Your task to perform on an android device: Add "asus rog" to the cart on ebay, then select checkout. Image 0: 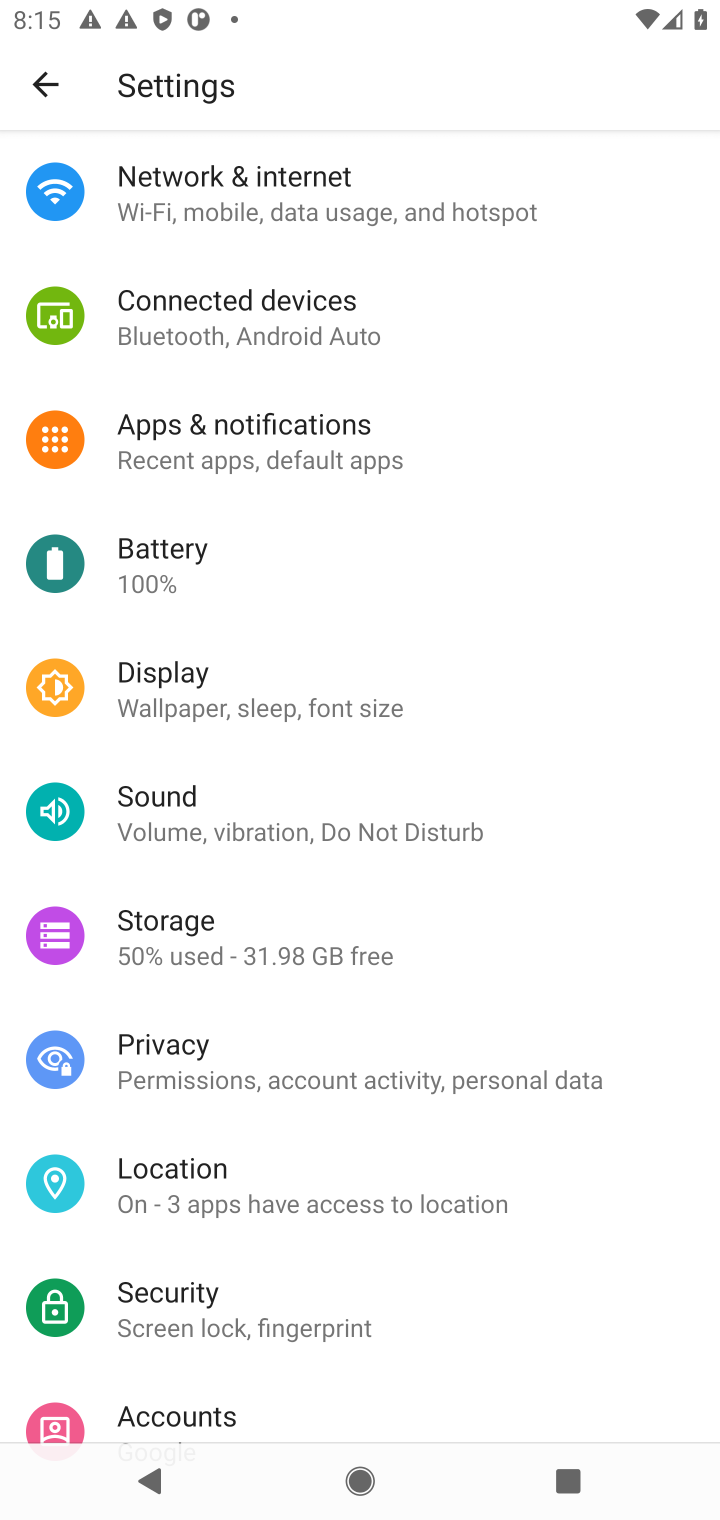
Step 0: press home button
Your task to perform on an android device: Add "asus rog" to the cart on ebay, then select checkout. Image 1: 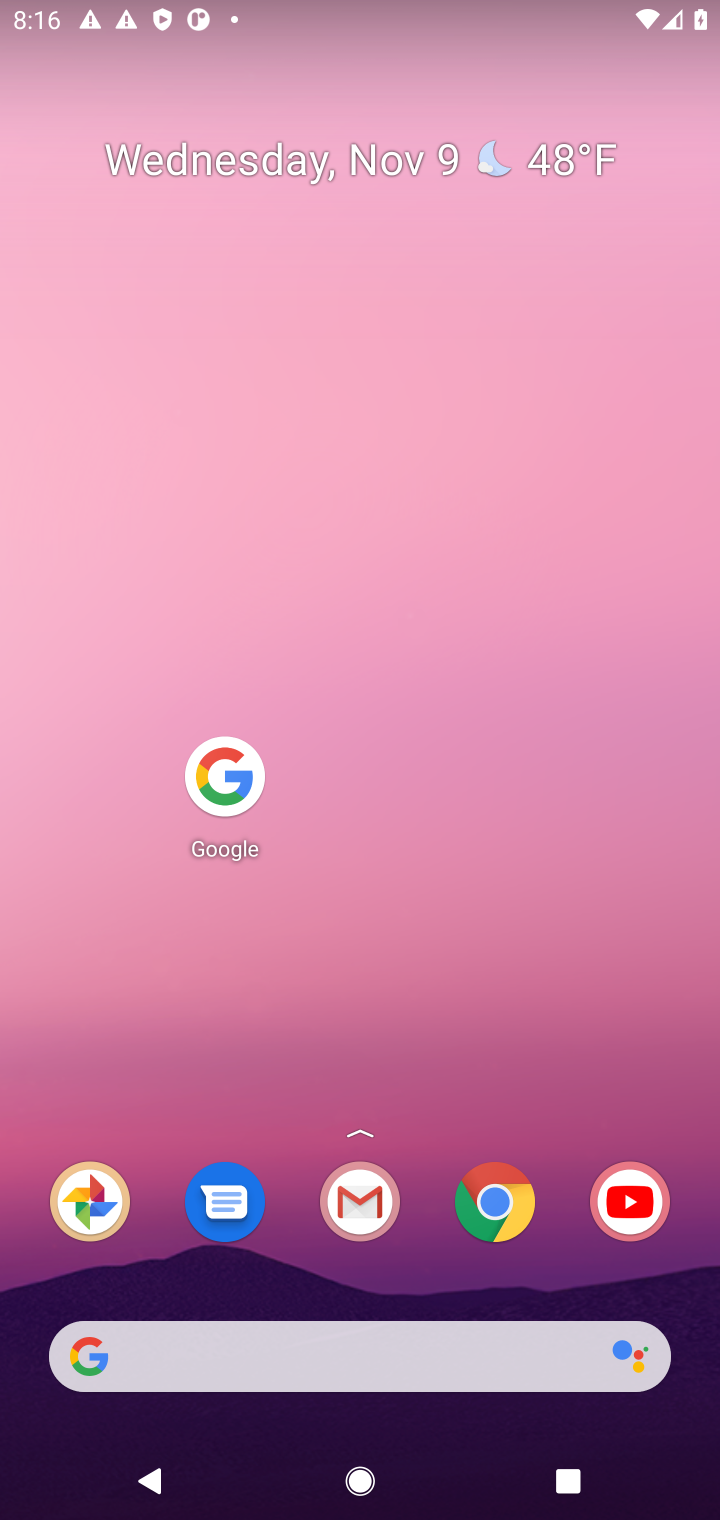
Step 1: click (219, 765)
Your task to perform on an android device: Add "asus rog" to the cart on ebay, then select checkout. Image 2: 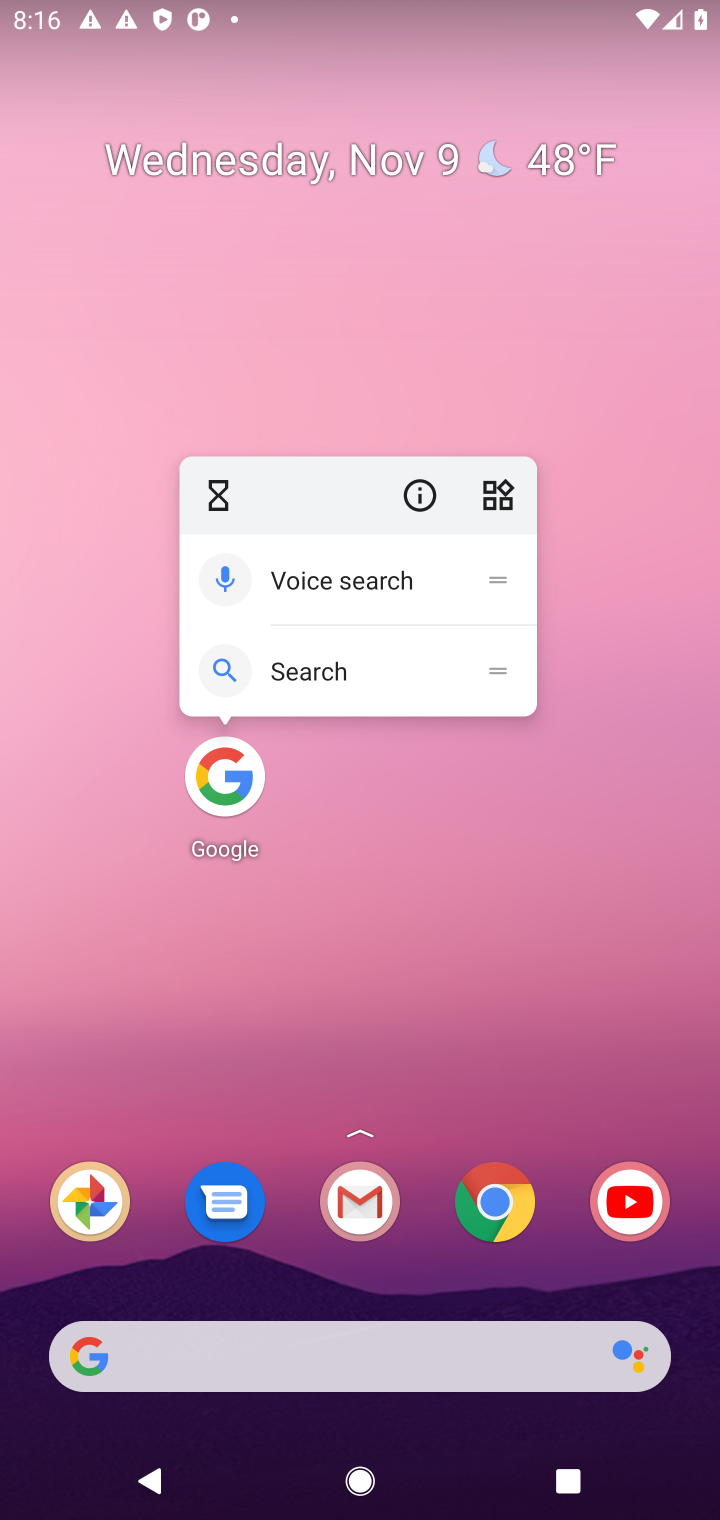
Step 2: click (237, 744)
Your task to perform on an android device: Add "asus rog" to the cart on ebay, then select checkout. Image 3: 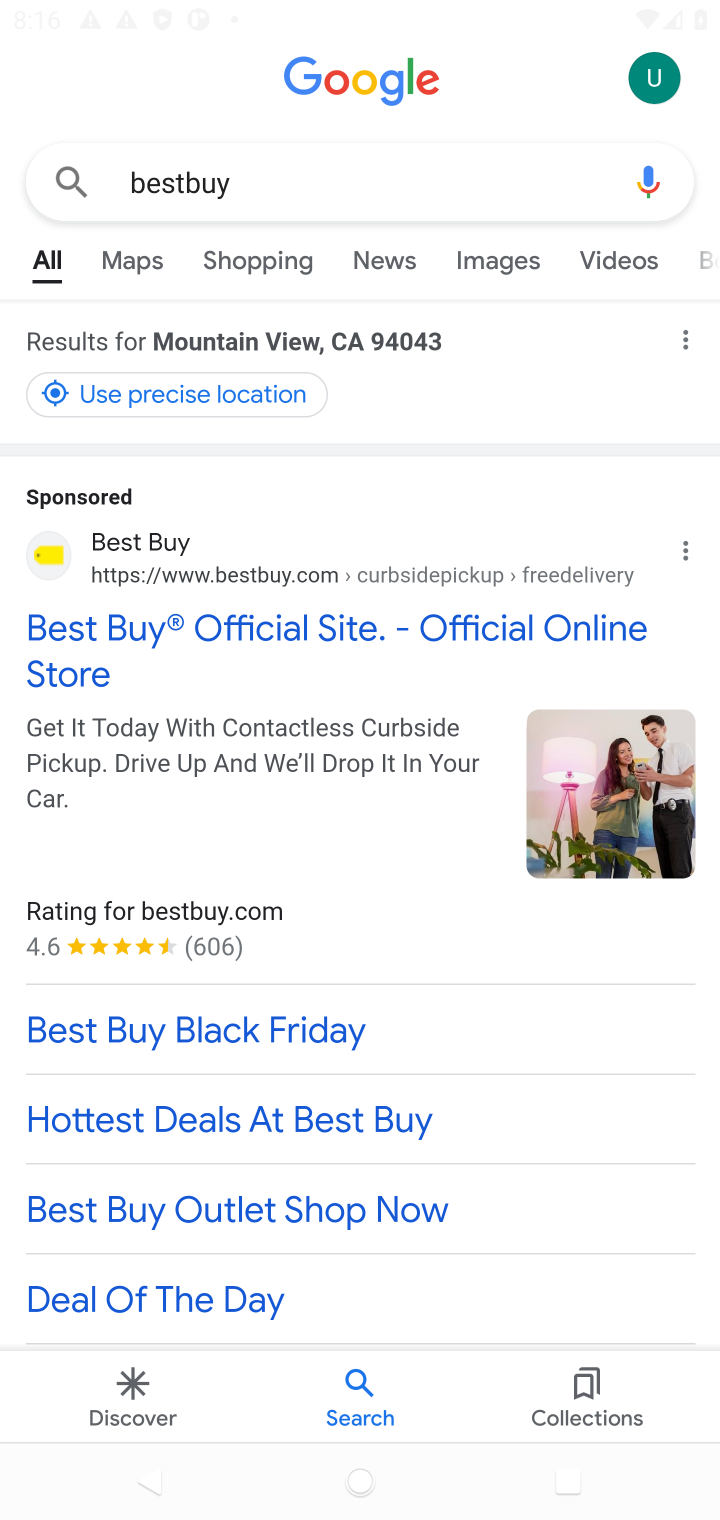
Step 3: click (220, 778)
Your task to perform on an android device: Add "asus rog" to the cart on ebay, then select checkout. Image 4: 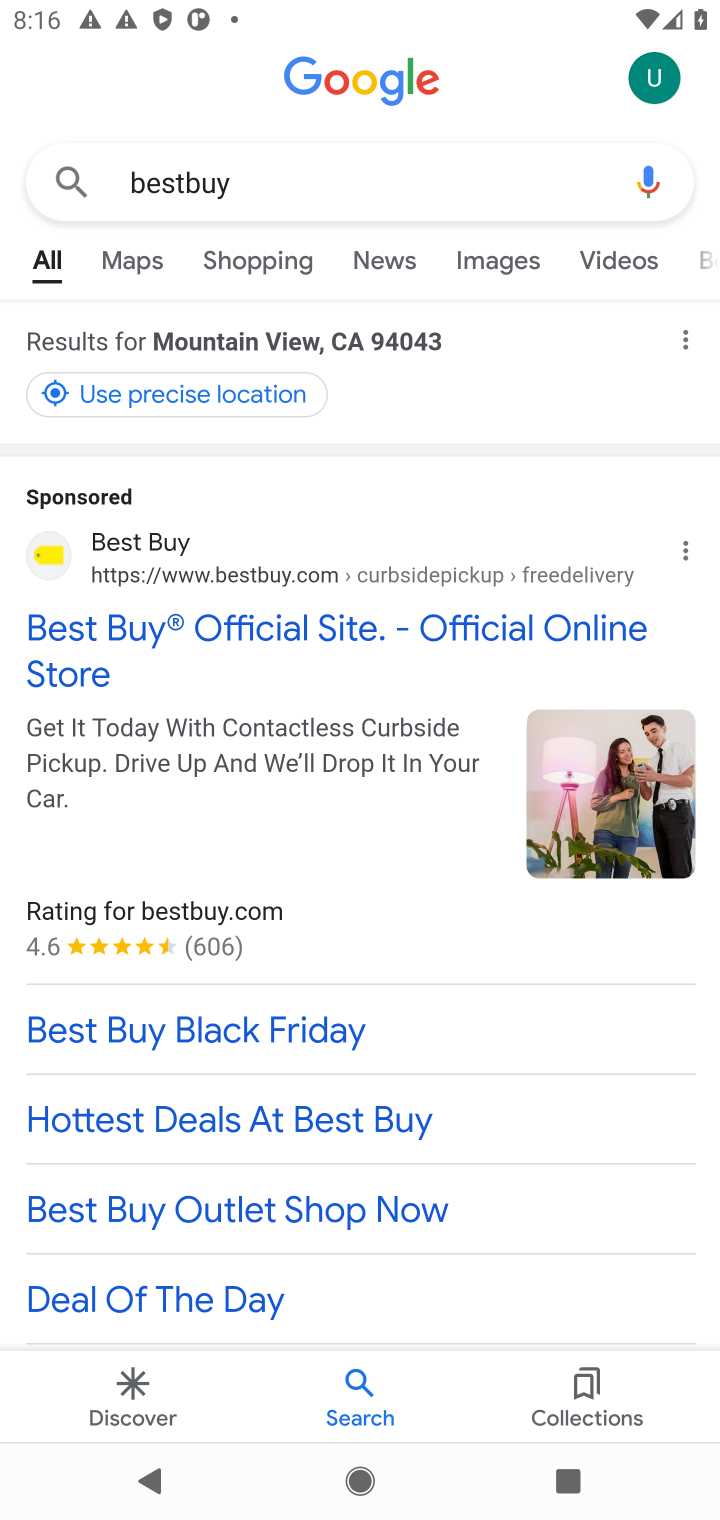
Step 4: click (342, 192)
Your task to perform on an android device: Add "asus rog" to the cart on ebay, then select checkout. Image 5: 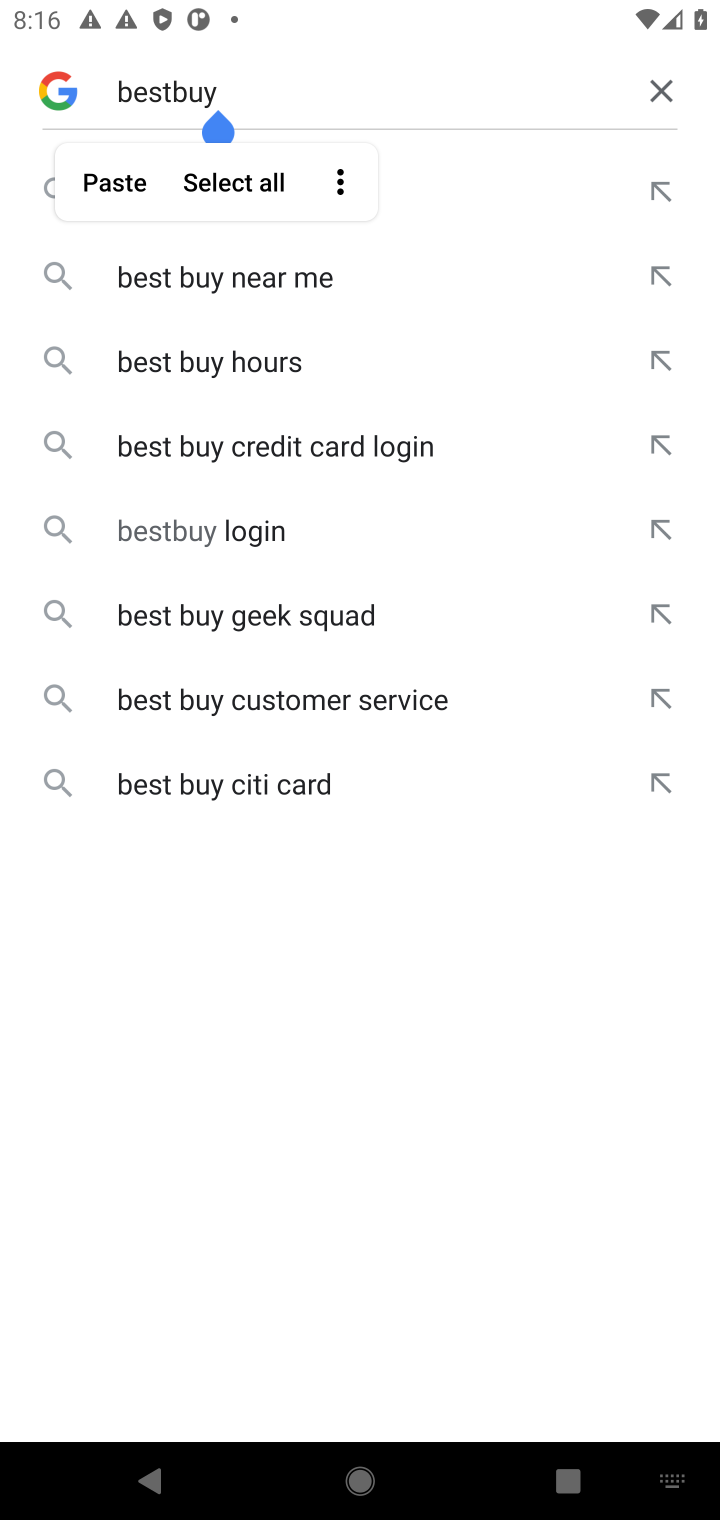
Step 5: click (655, 84)
Your task to perform on an android device: Add "asus rog" to the cart on ebay, then select checkout. Image 6: 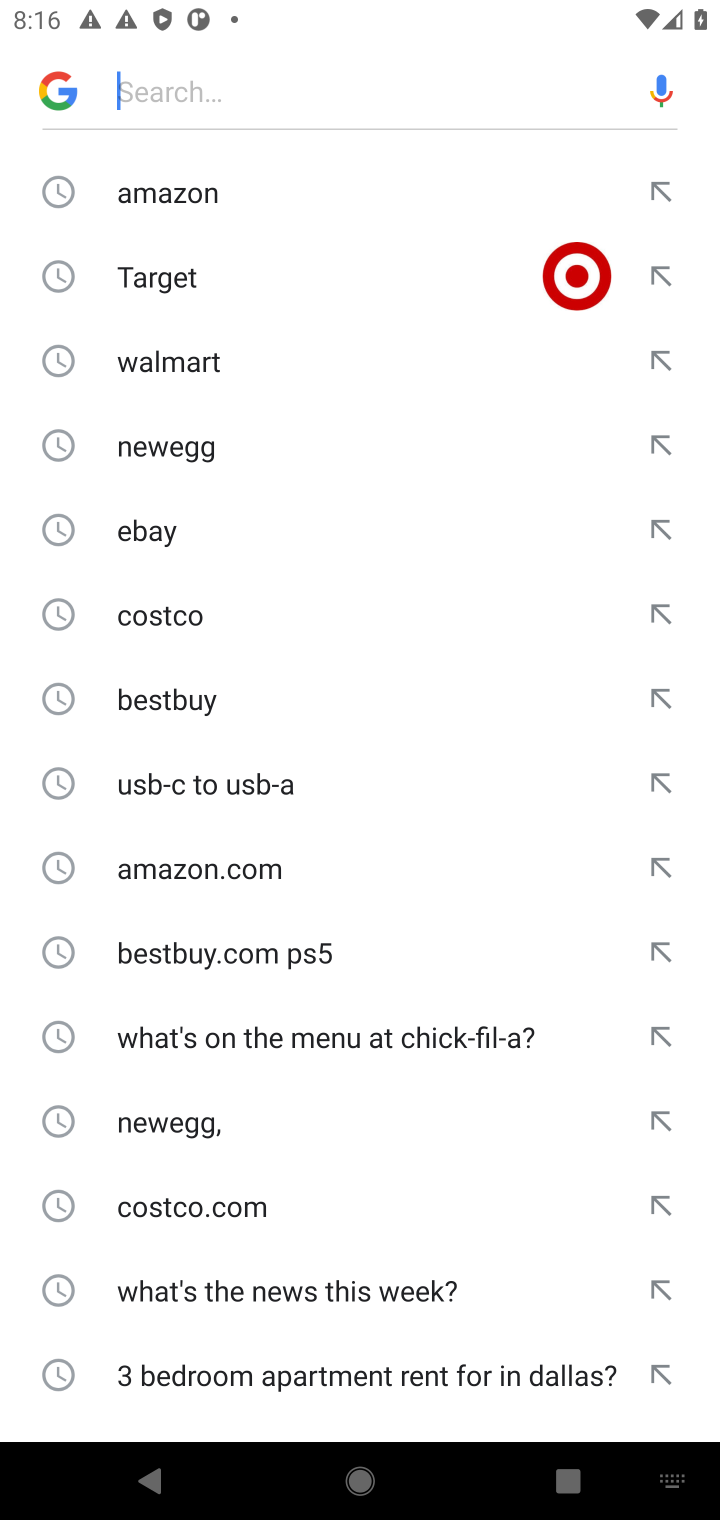
Step 6: click (125, 534)
Your task to perform on an android device: Add "asus rog" to the cart on ebay, then select checkout. Image 7: 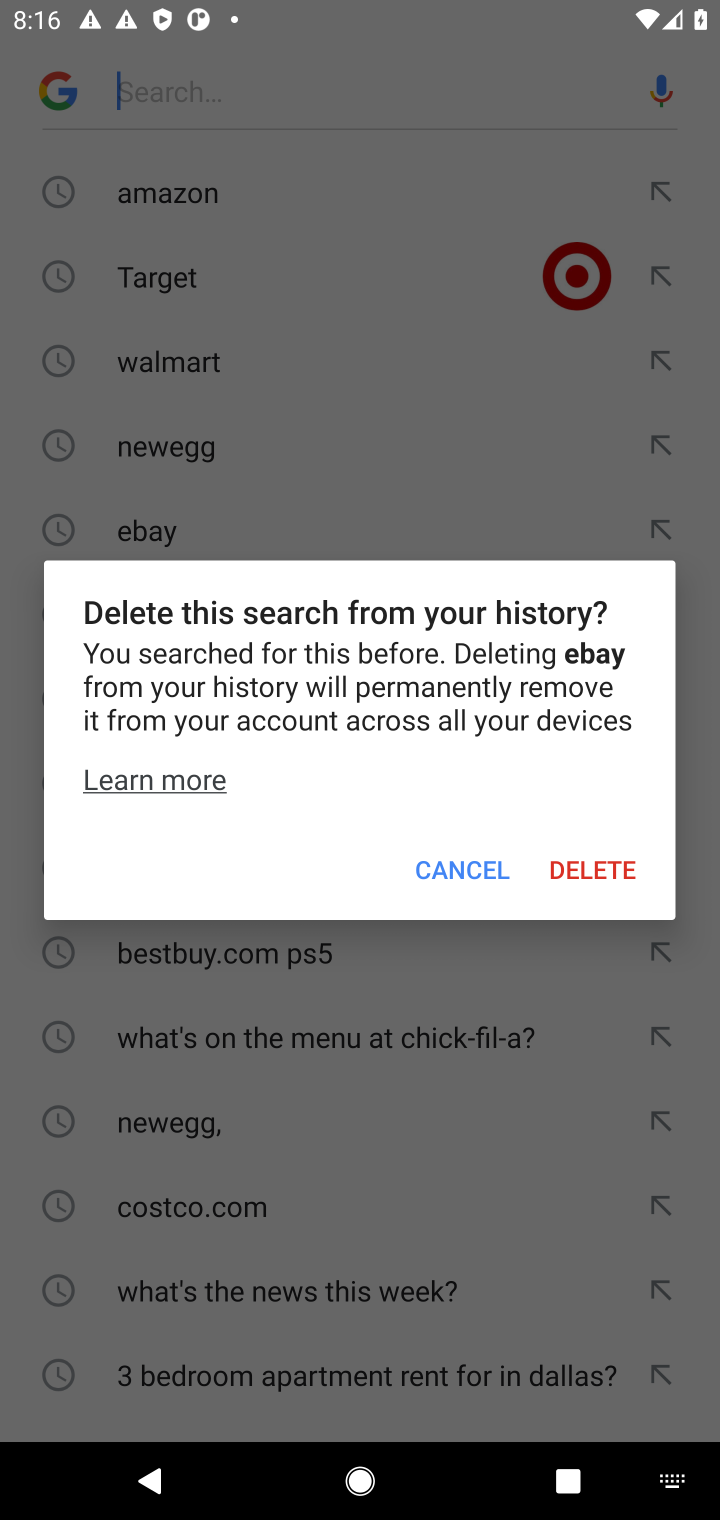
Step 7: click (440, 867)
Your task to perform on an android device: Add "asus rog" to the cart on ebay, then select checkout. Image 8: 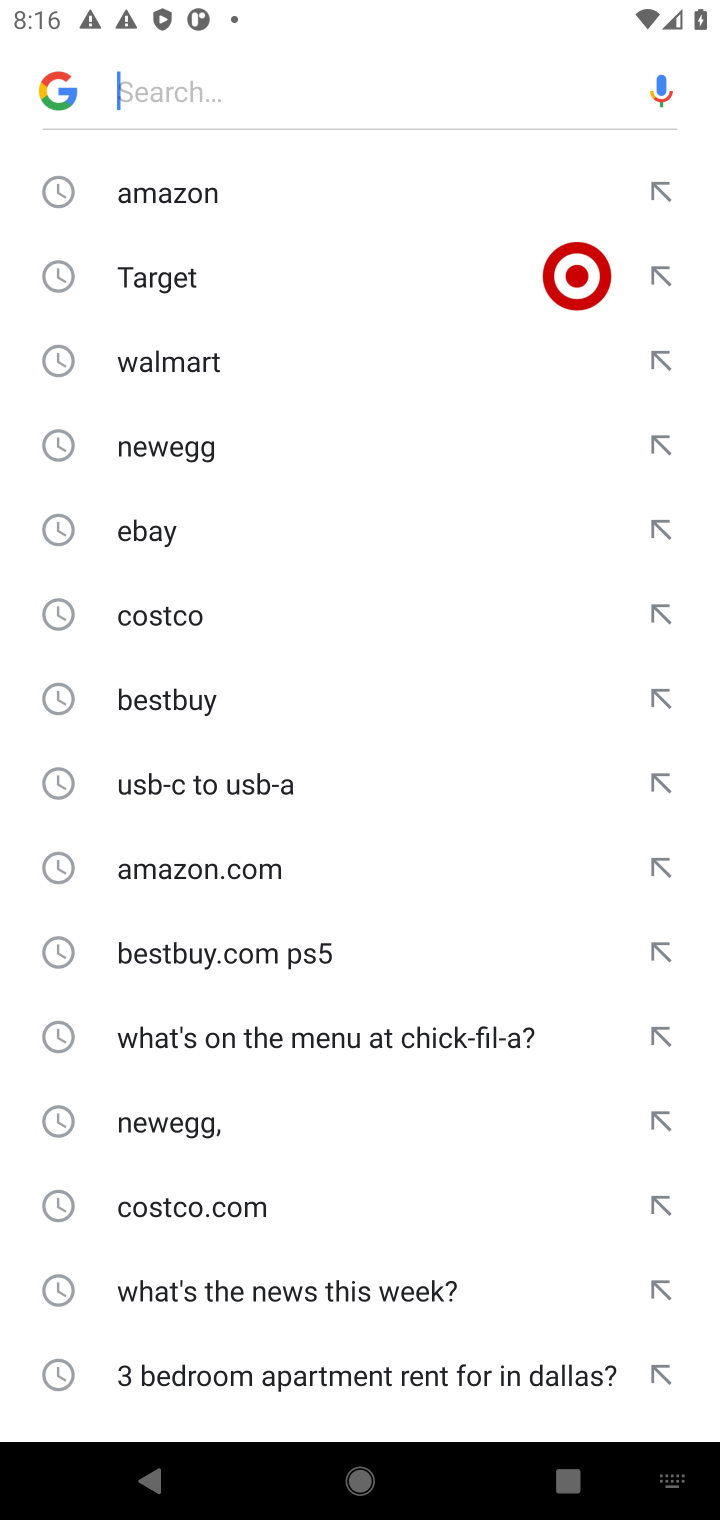
Step 8: click (155, 540)
Your task to perform on an android device: Add "asus rog" to the cart on ebay, then select checkout. Image 9: 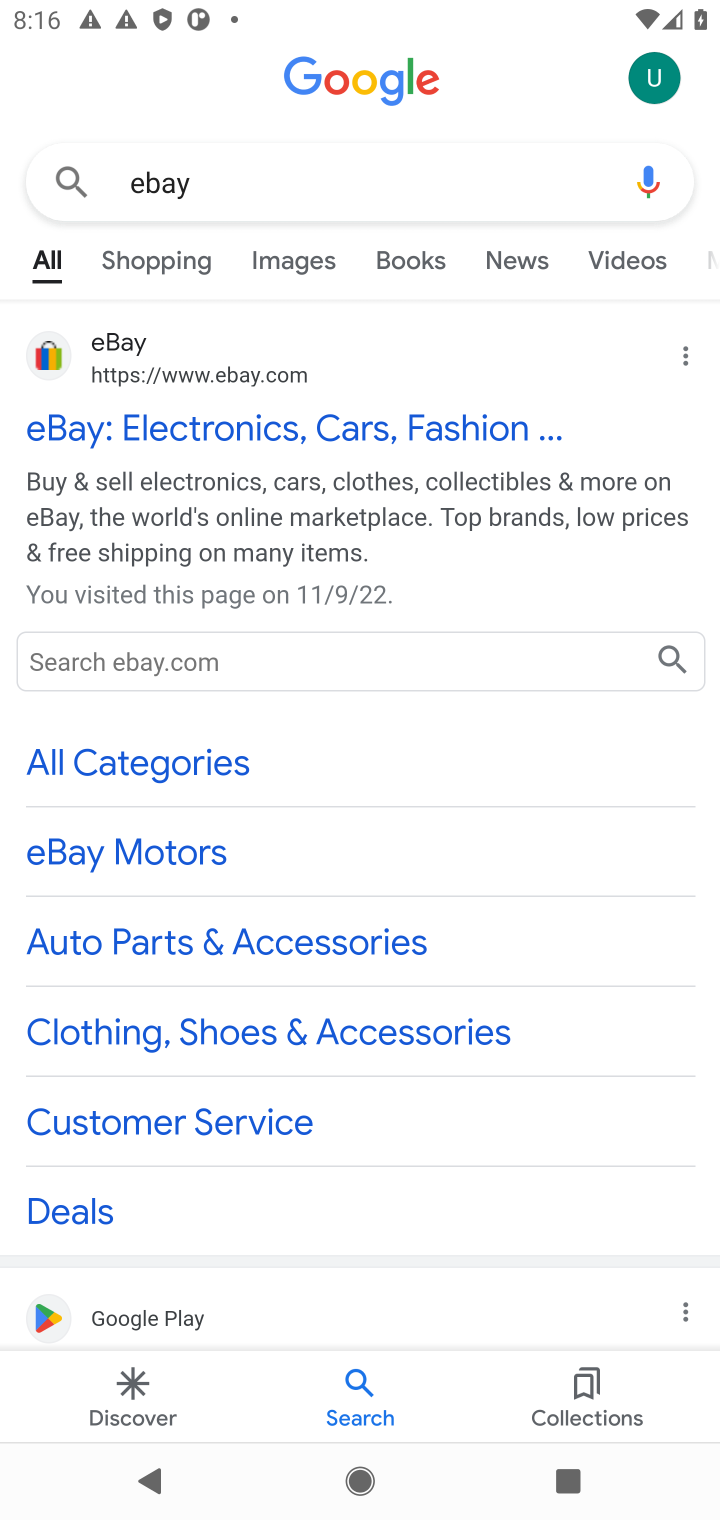
Step 9: click (235, 428)
Your task to perform on an android device: Add "asus rog" to the cart on ebay, then select checkout. Image 10: 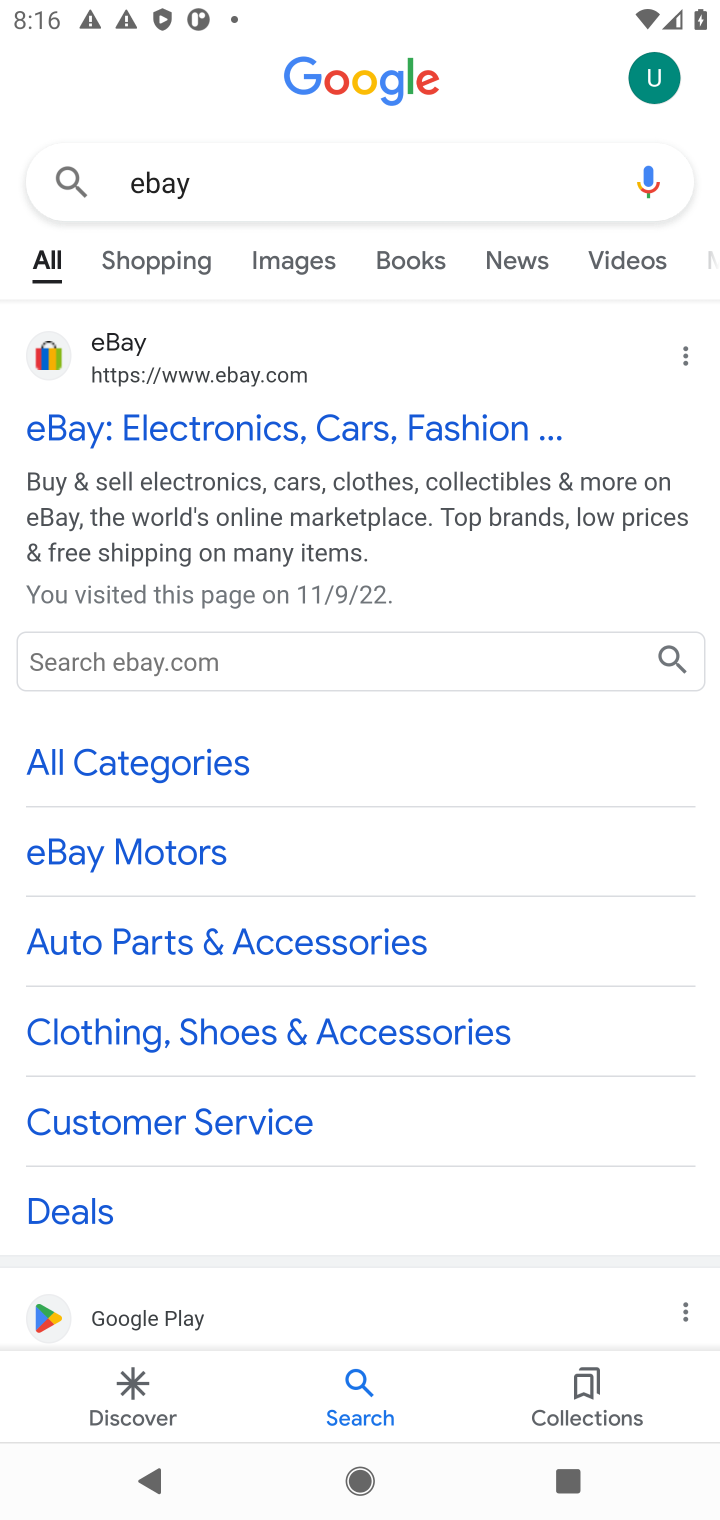
Step 10: click (235, 428)
Your task to perform on an android device: Add "asus rog" to the cart on ebay, then select checkout. Image 11: 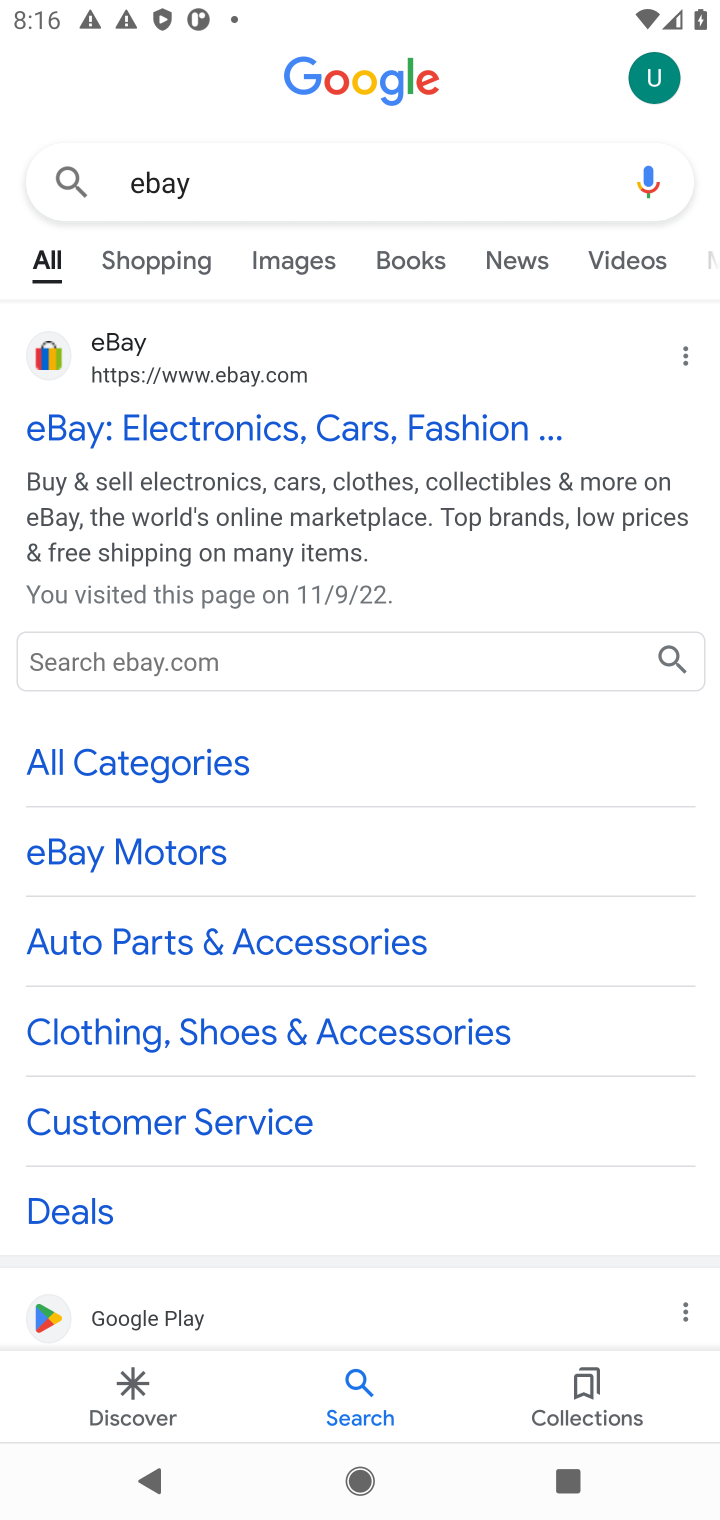
Step 11: click (190, 418)
Your task to perform on an android device: Add "asus rog" to the cart on ebay, then select checkout. Image 12: 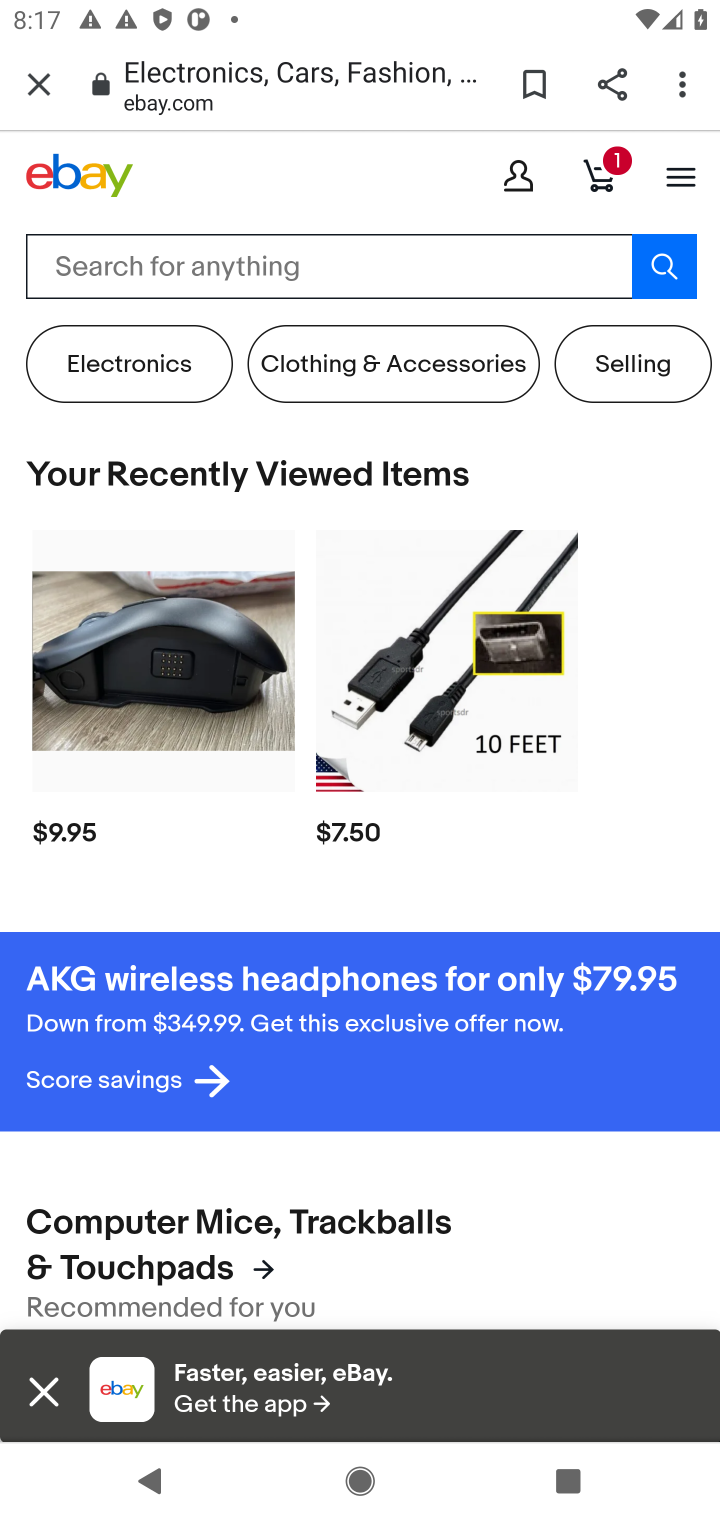
Step 12: click (182, 255)
Your task to perform on an android device: Add "asus rog" to the cart on ebay, then select checkout. Image 13: 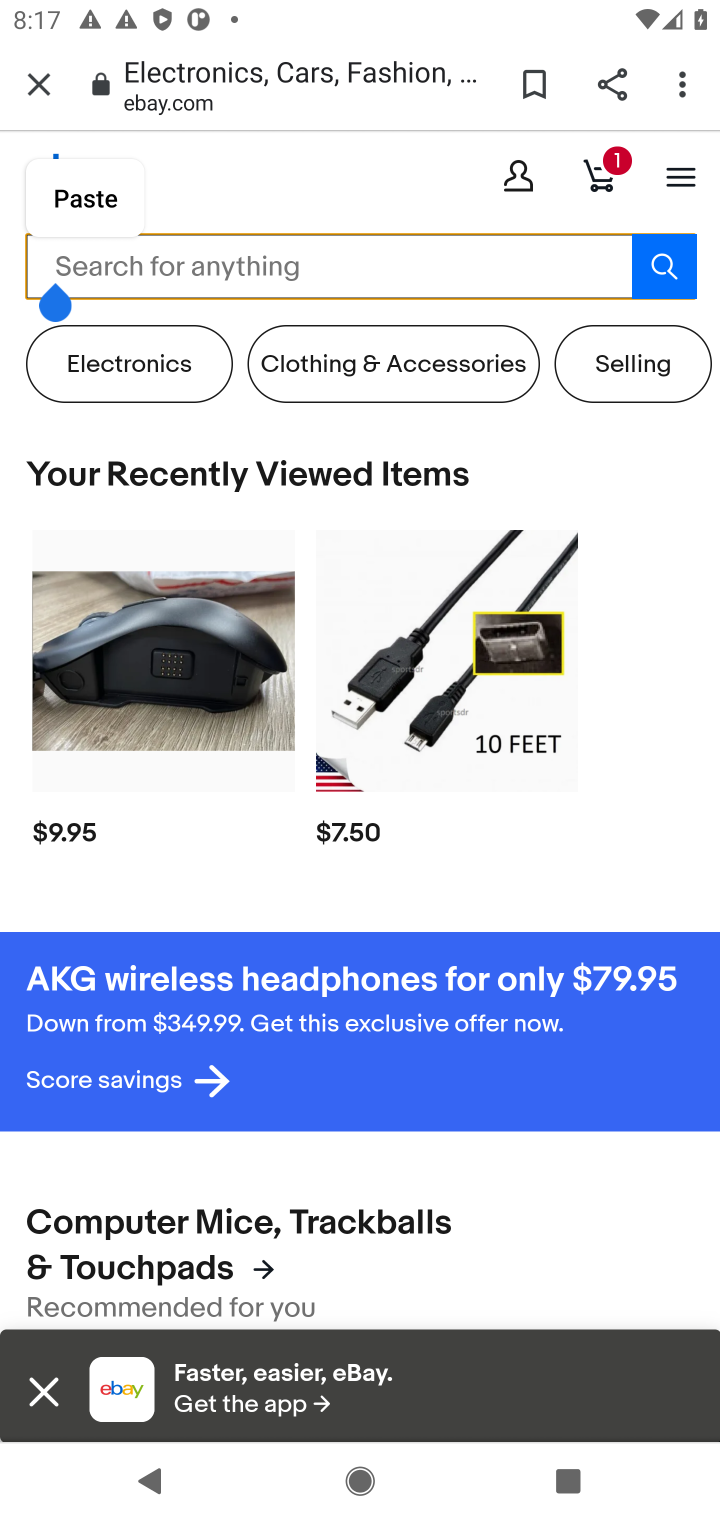
Step 13: type "asus rog"
Your task to perform on an android device: Add "asus rog" to the cart on ebay, then select checkout. Image 14: 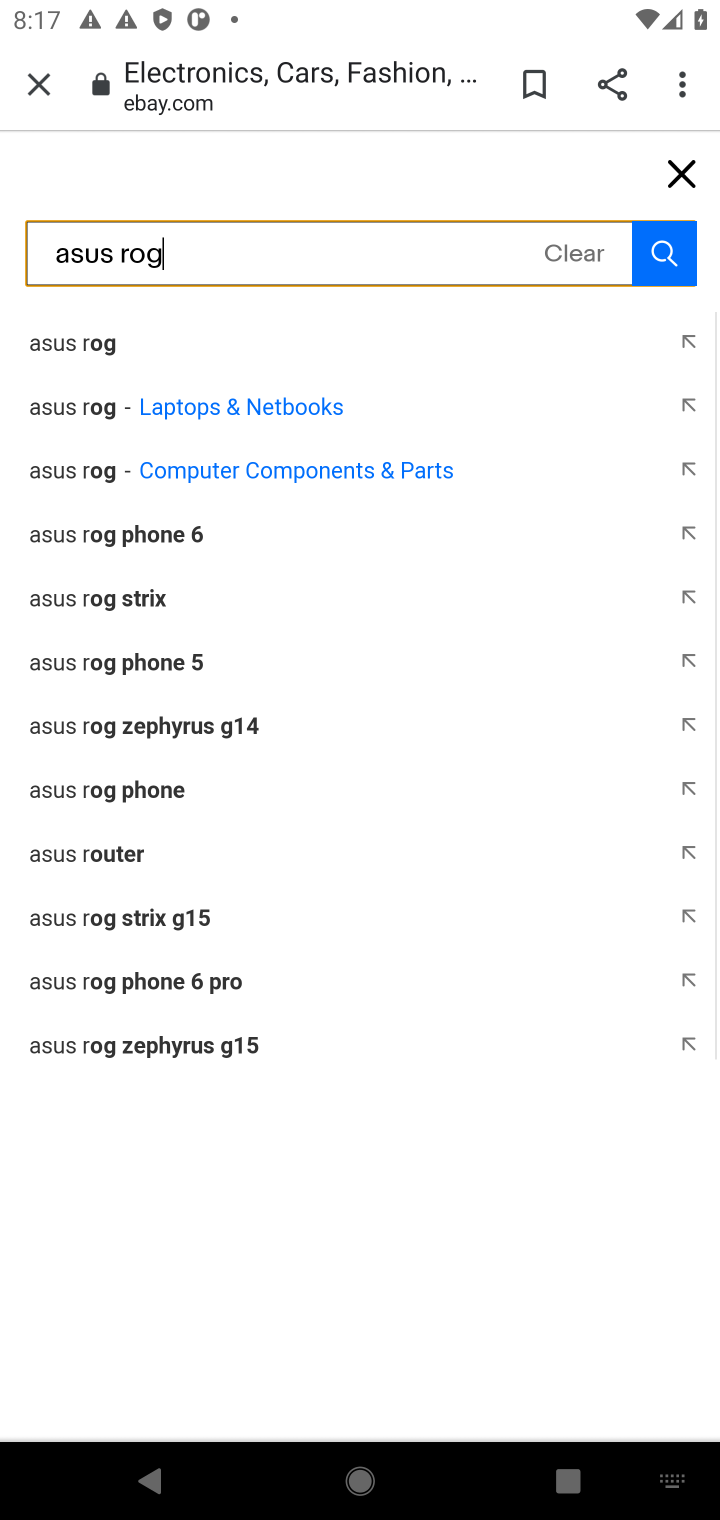
Step 14: press enter
Your task to perform on an android device: Add "asus rog" to the cart on ebay, then select checkout. Image 15: 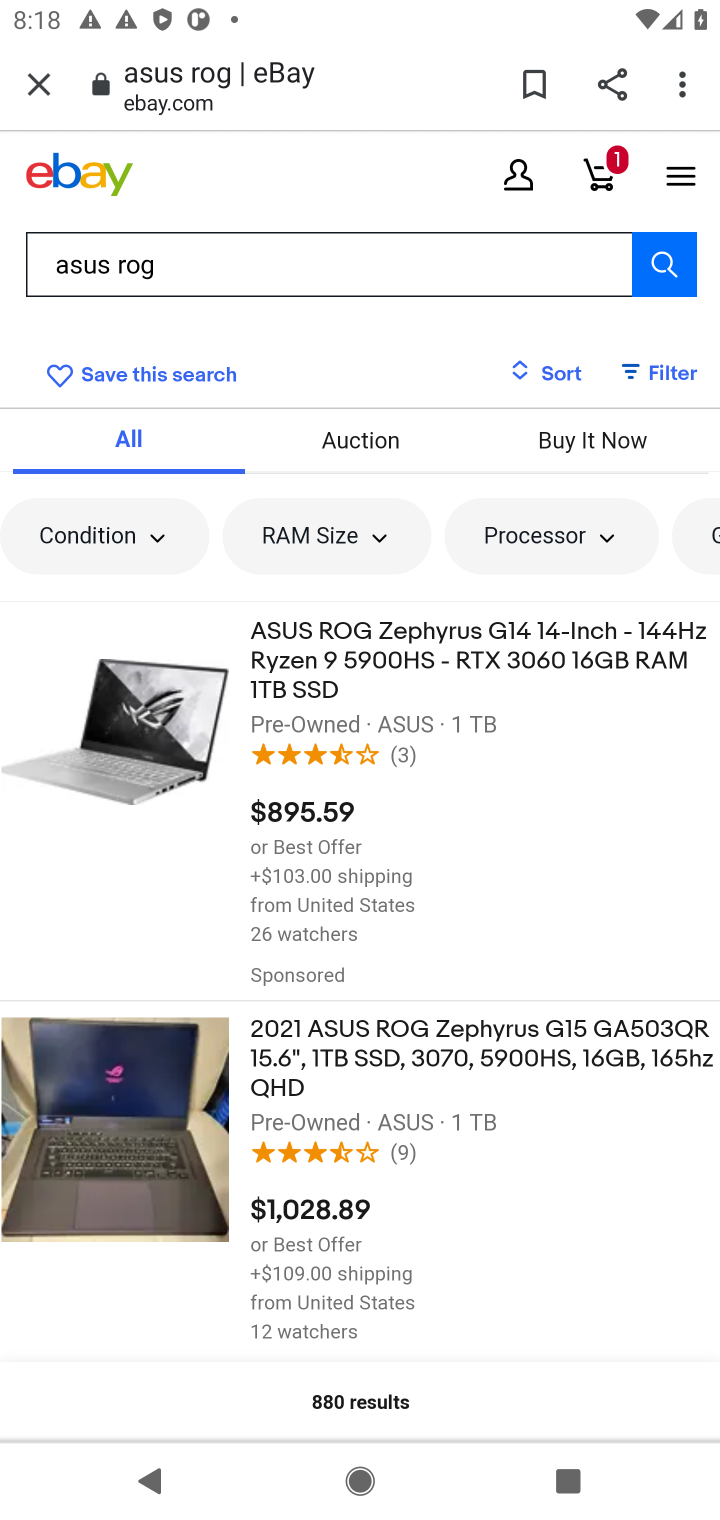
Step 15: click (479, 797)
Your task to perform on an android device: Add "asus rog" to the cart on ebay, then select checkout. Image 16: 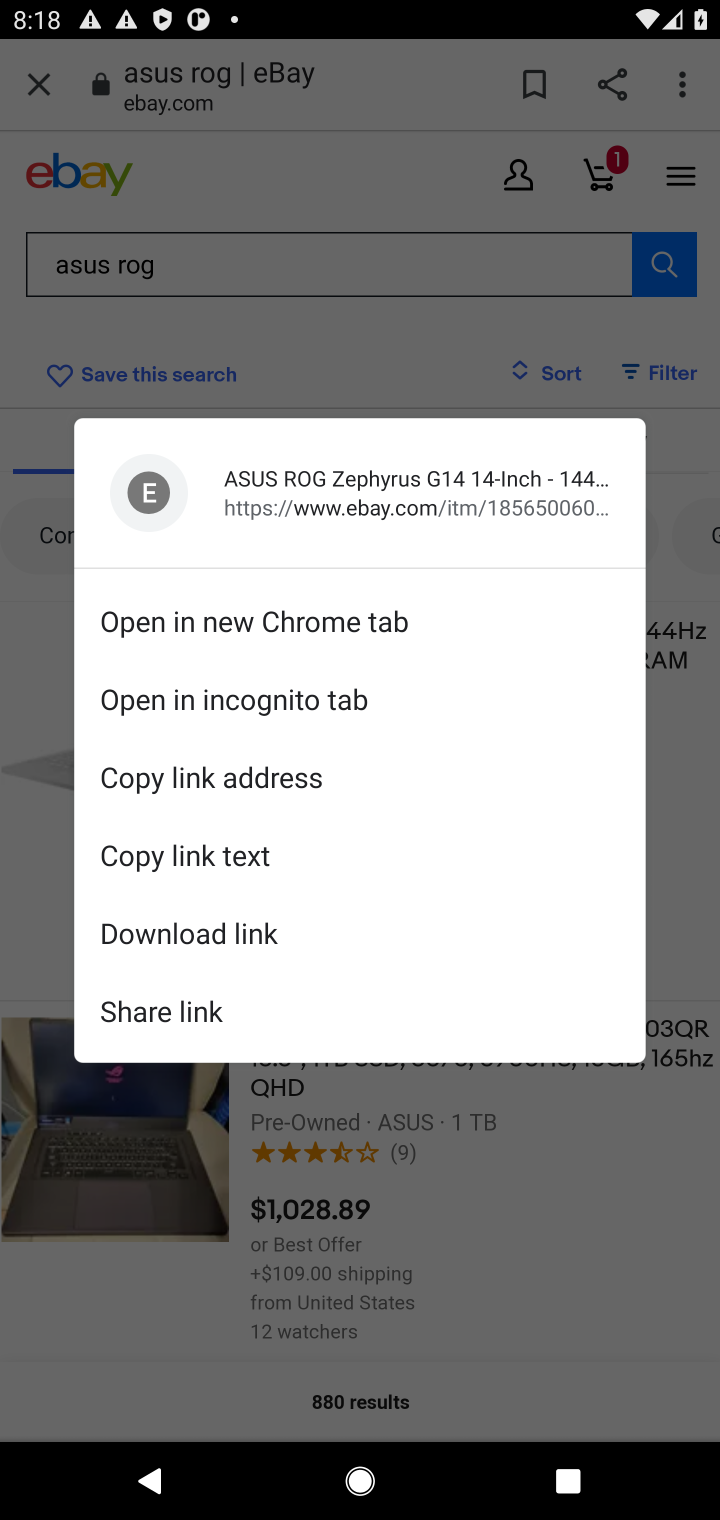
Step 16: click (683, 638)
Your task to perform on an android device: Add "asus rog" to the cart on ebay, then select checkout. Image 17: 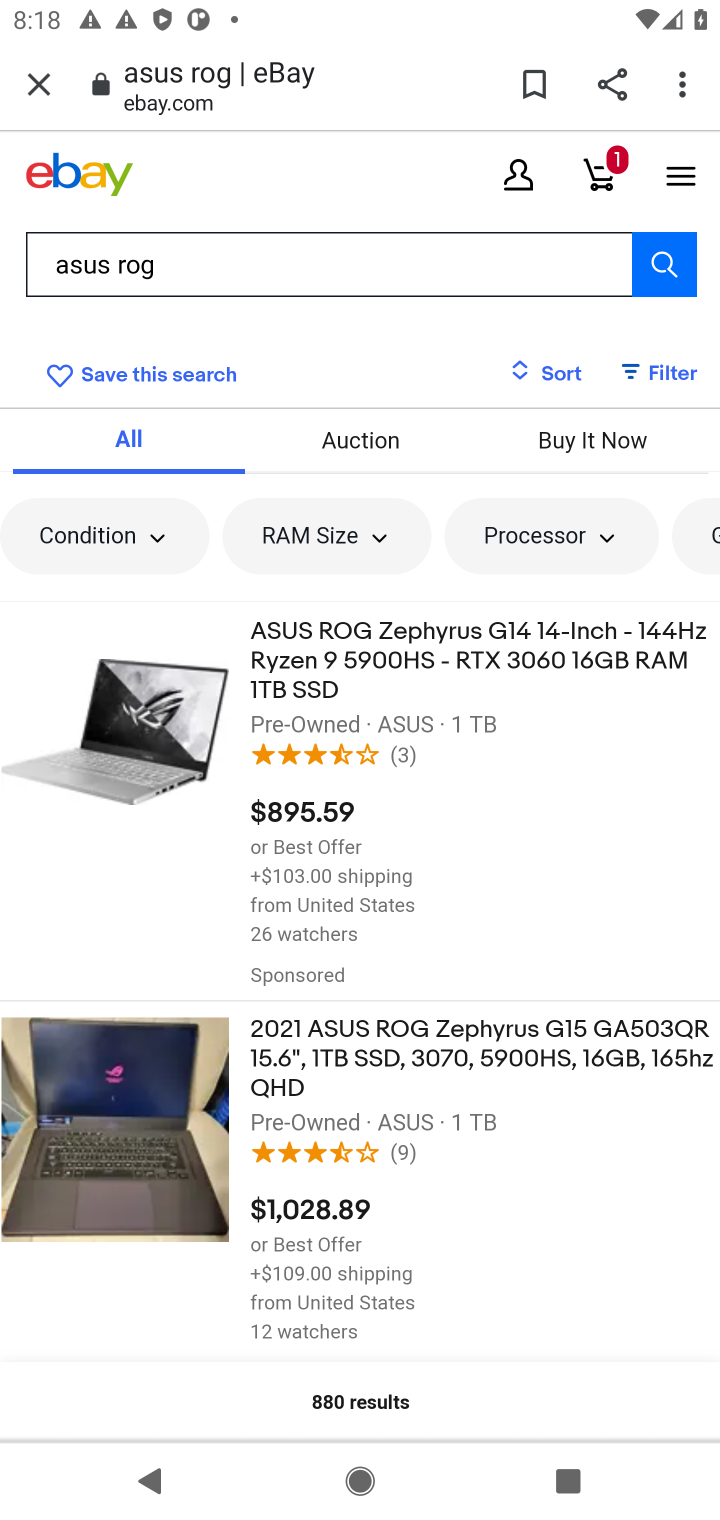
Step 17: click (398, 646)
Your task to perform on an android device: Add "asus rog" to the cart on ebay, then select checkout. Image 18: 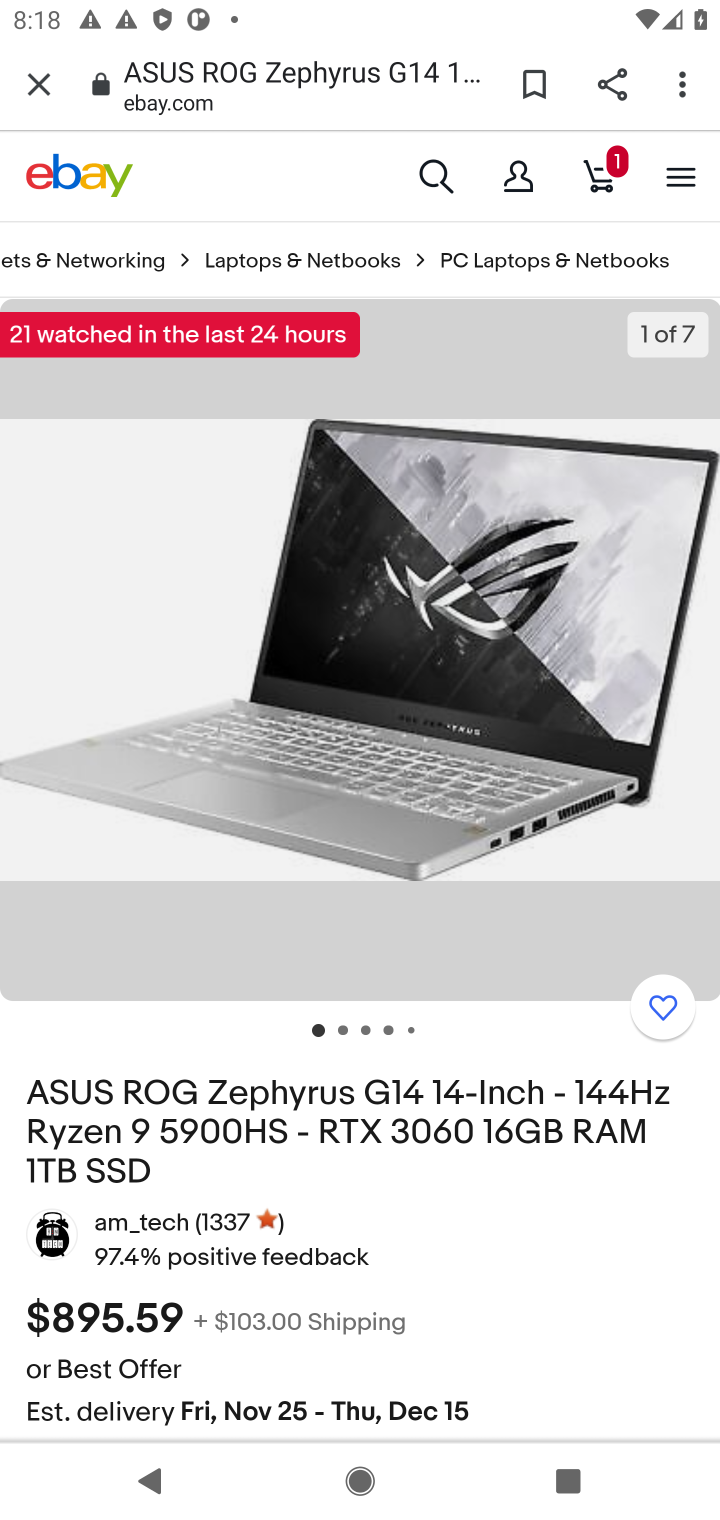
Step 18: drag from (306, 1330) to (661, 326)
Your task to perform on an android device: Add "asus rog" to the cart on ebay, then select checkout. Image 19: 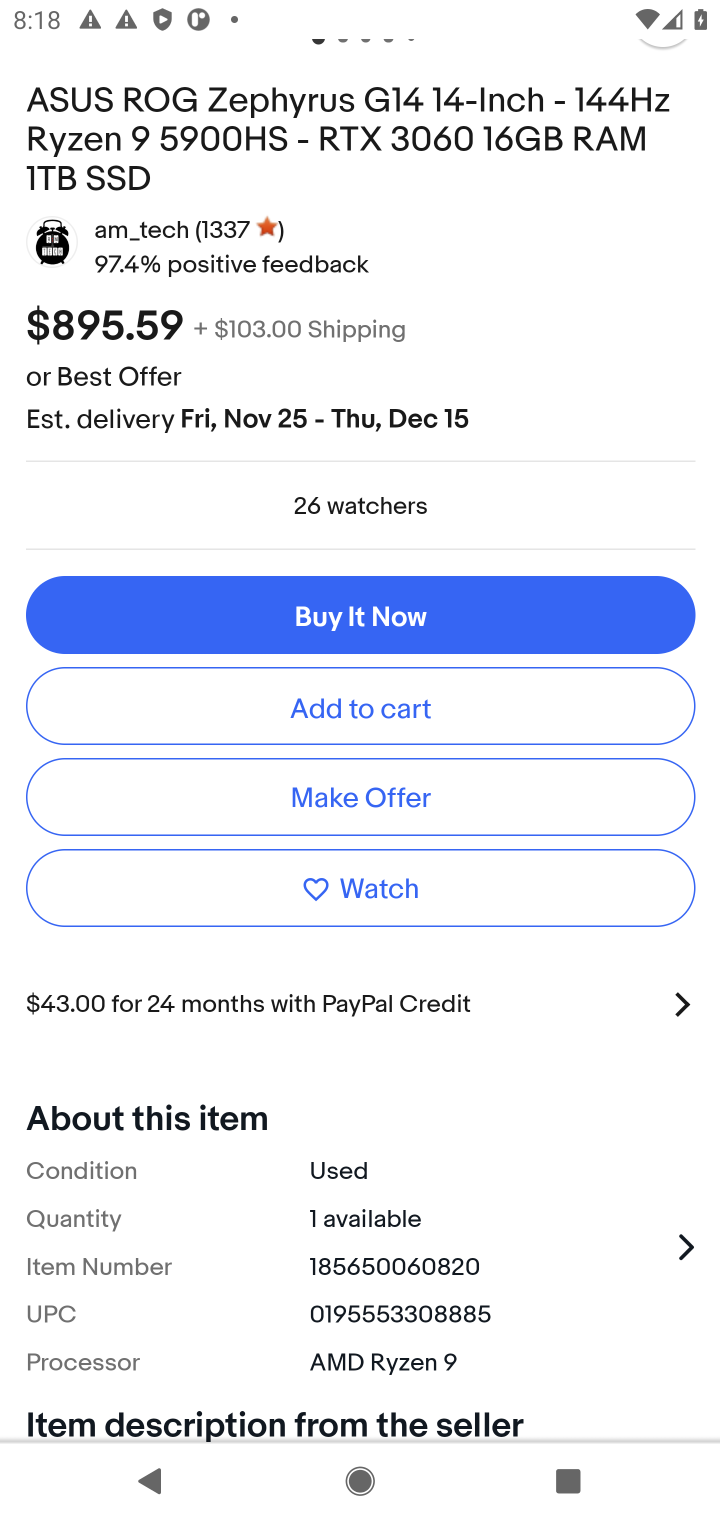
Step 19: click (367, 711)
Your task to perform on an android device: Add "asus rog" to the cart on ebay, then select checkout. Image 20: 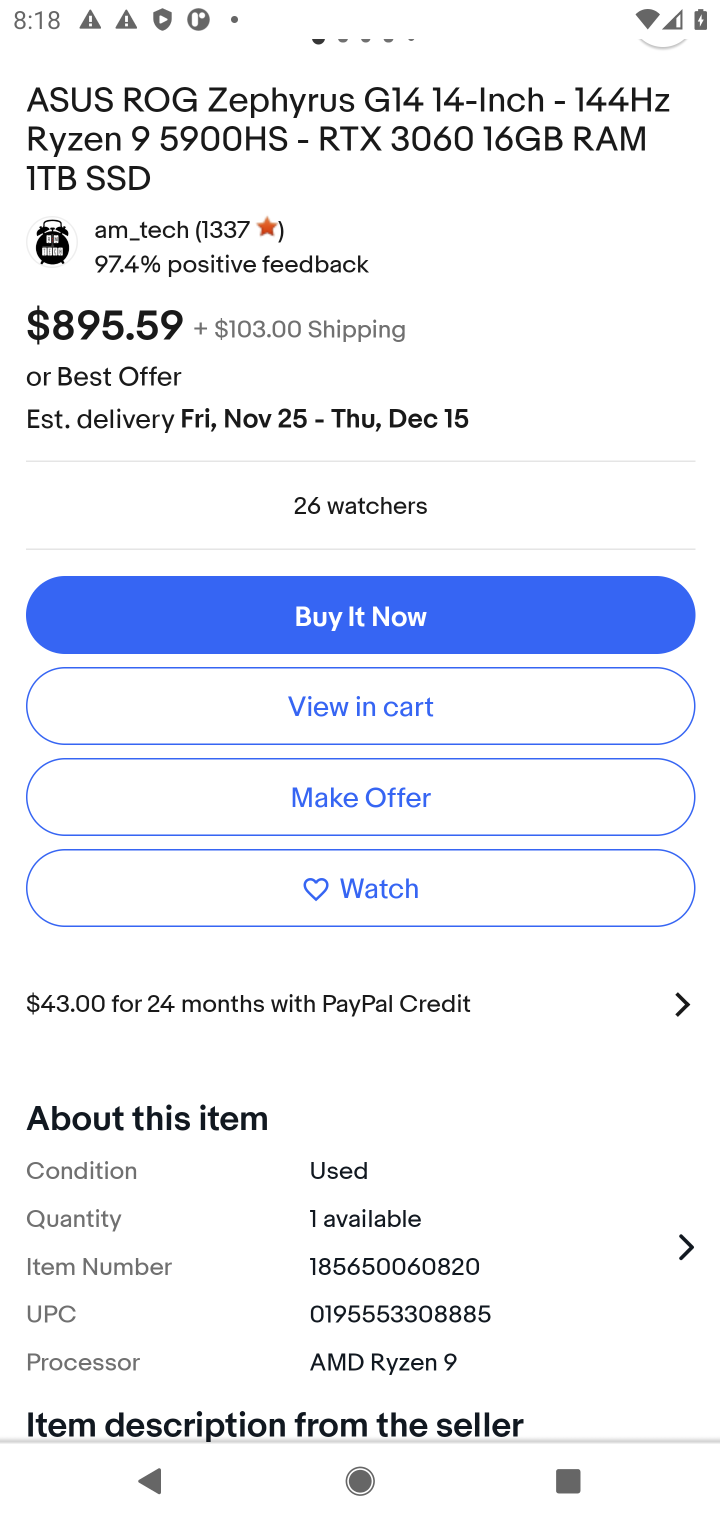
Step 20: click (367, 709)
Your task to perform on an android device: Add "asus rog" to the cart on ebay, then select checkout. Image 21: 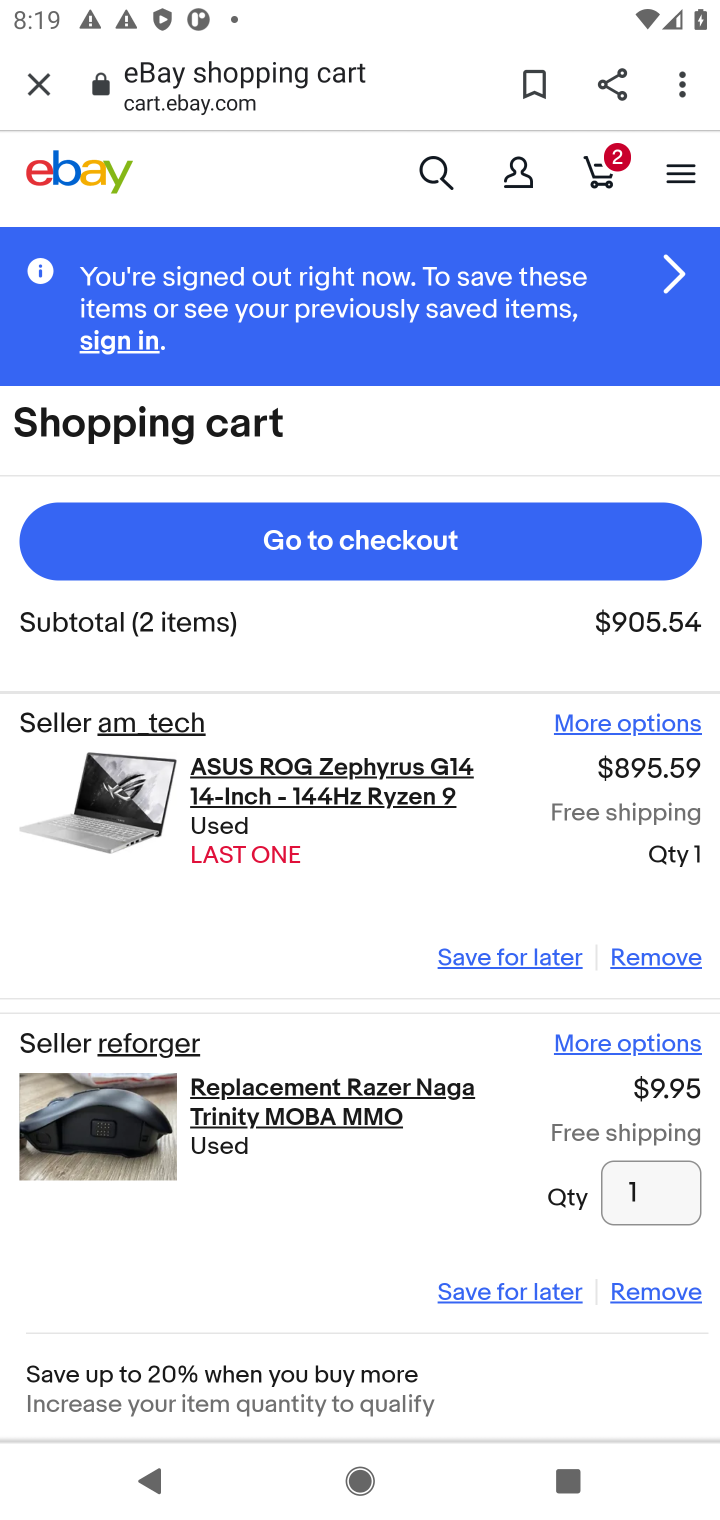
Step 21: drag from (122, 915) to (289, 576)
Your task to perform on an android device: Add "asus rog" to the cart on ebay, then select checkout. Image 22: 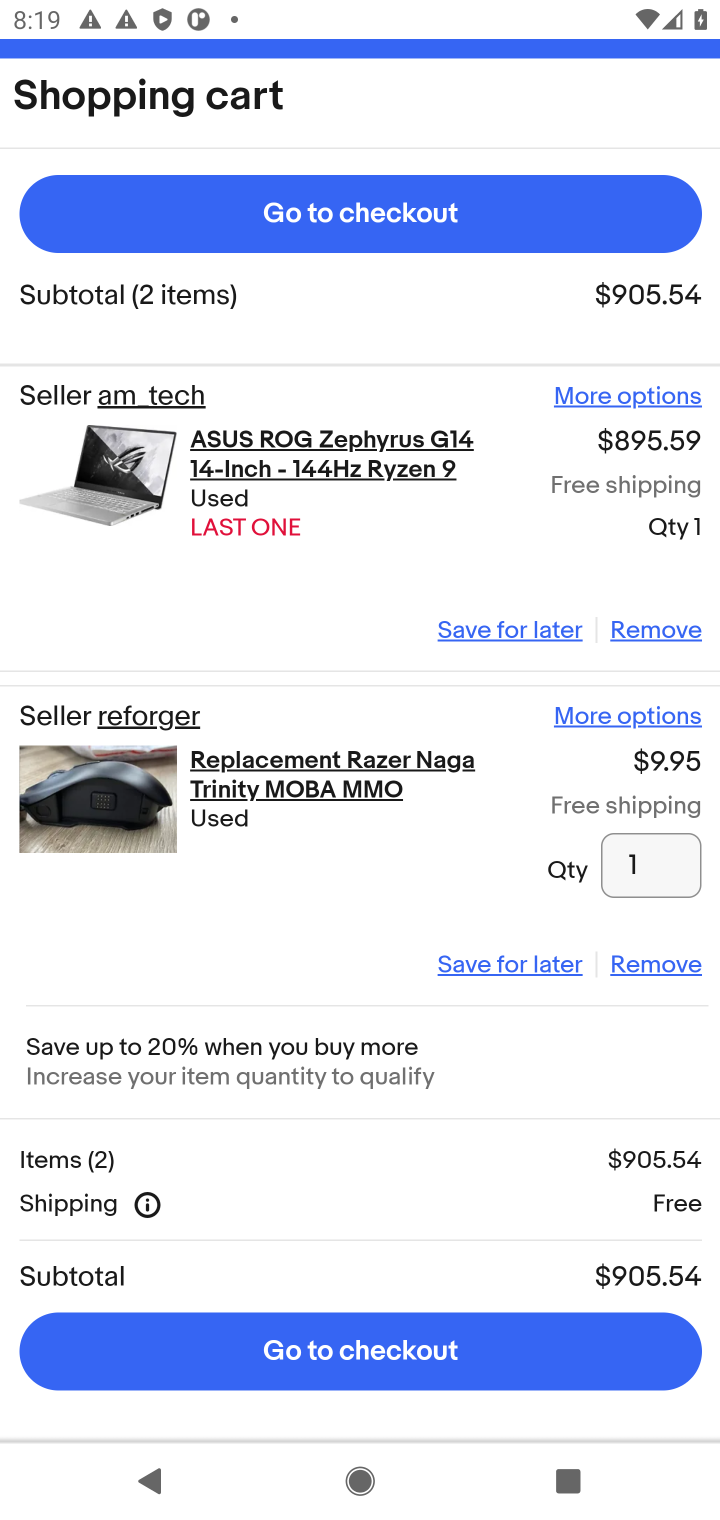
Step 22: click (658, 959)
Your task to perform on an android device: Add "asus rog" to the cart on ebay, then select checkout. Image 23: 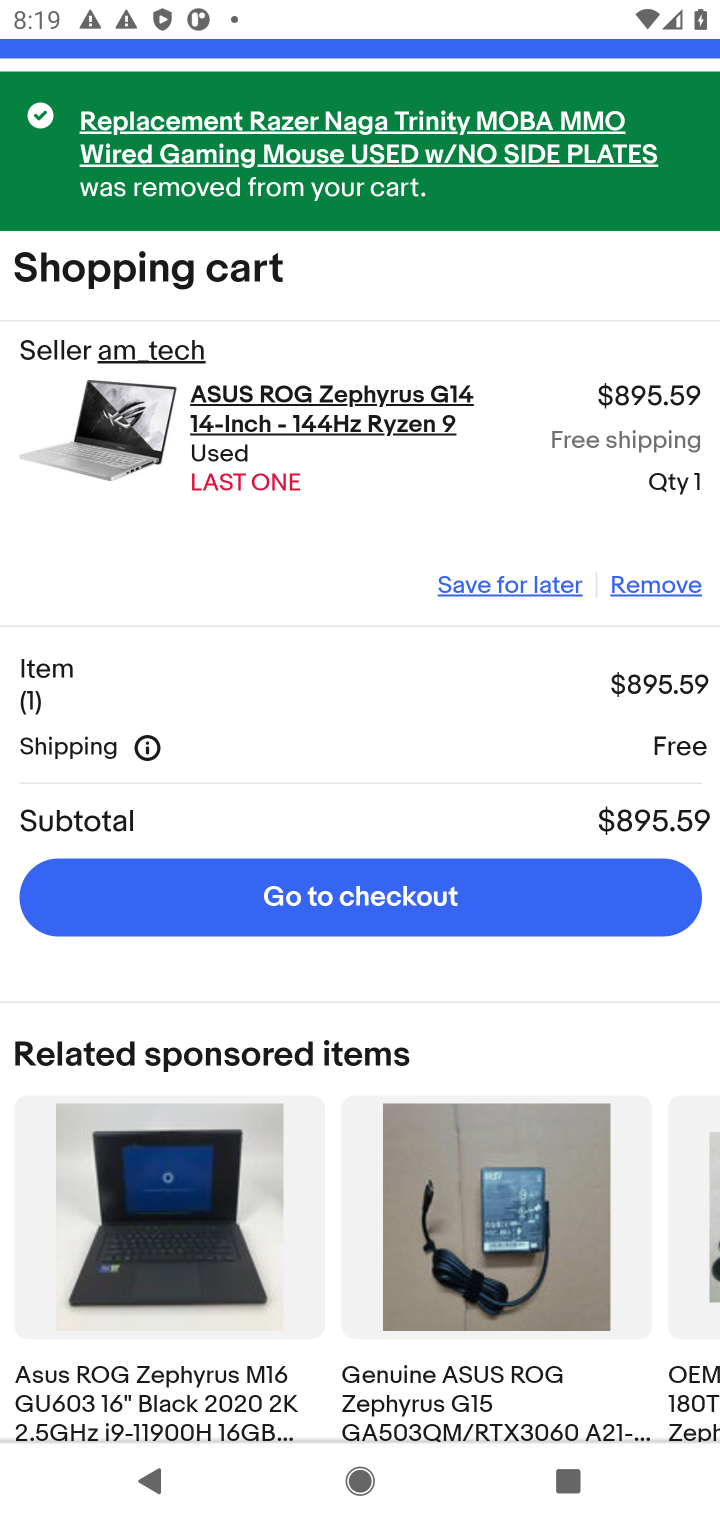
Step 23: click (392, 888)
Your task to perform on an android device: Add "asus rog" to the cart on ebay, then select checkout. Image 24: 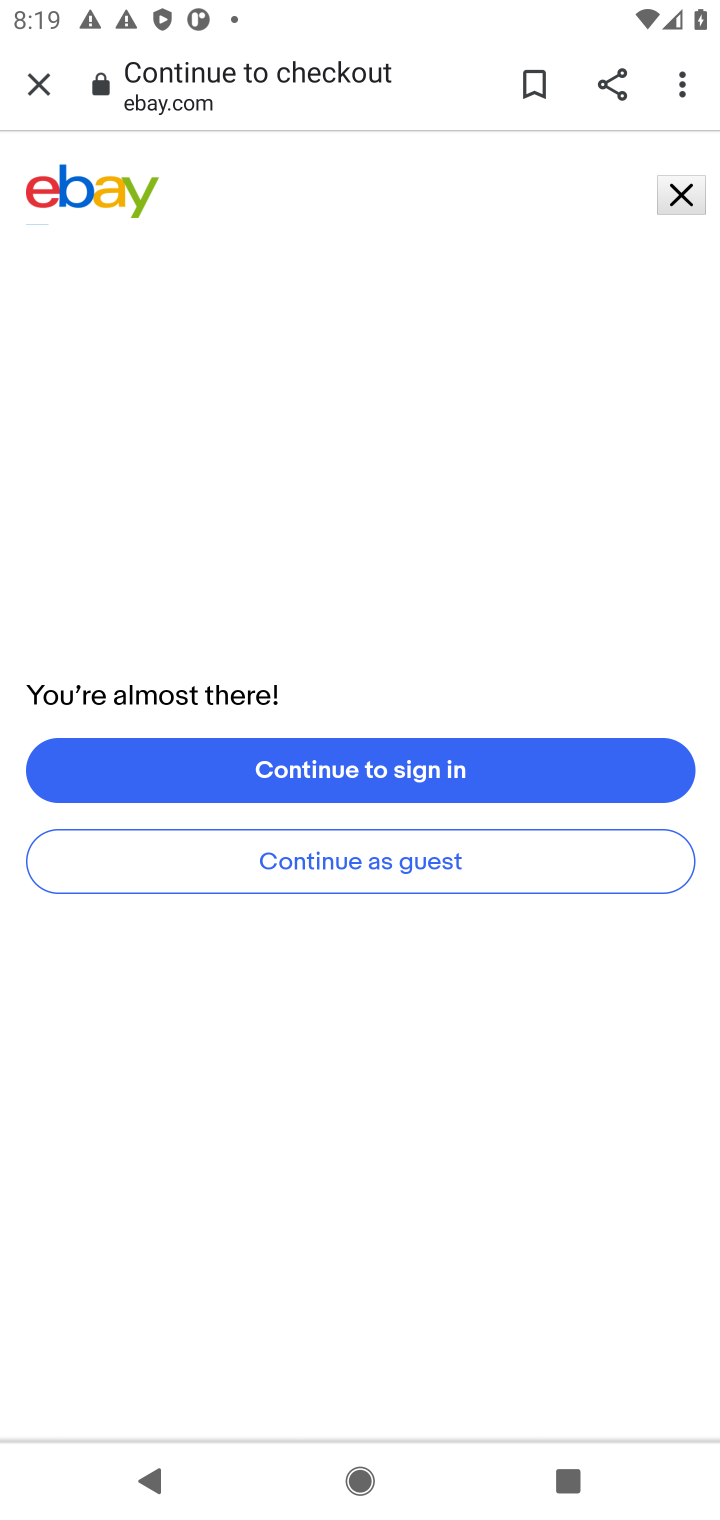
Step 24: task complete